Your task to perform on an android device: Search for asus rog on ebay.com, select the first entry, add it to the cart, then select checkout. Image 0: 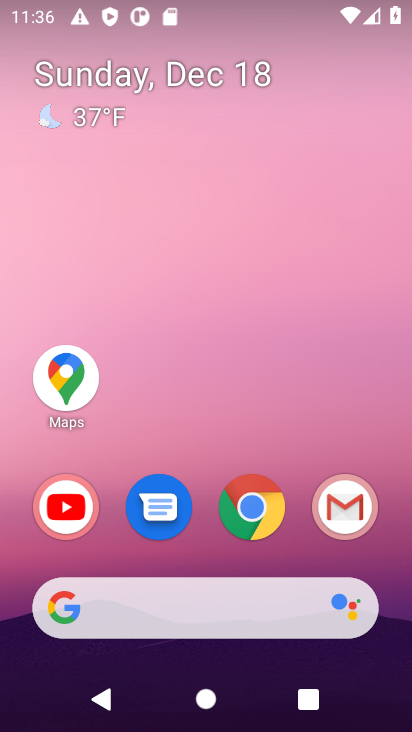
Step 0: click (261, 501)
Your task to perform on an android device: Search for asus rog on ebay.com, select the first entry, add it to the cart, then select checkout. Image 1: 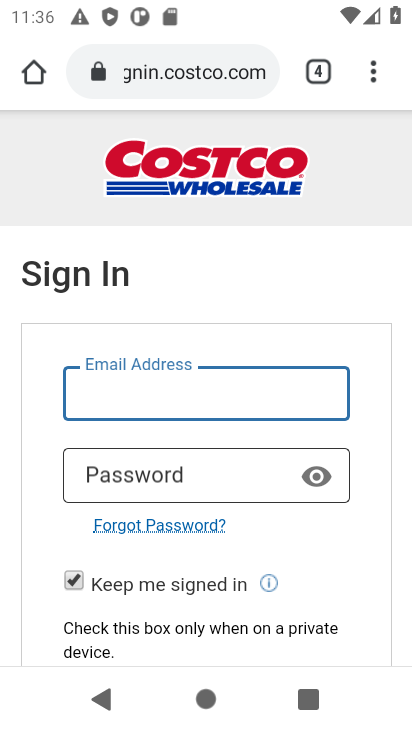
Step 1: click (132, 71)
Your task to perform on an android device: Search for asus rog on ebay.com, select the first entry, add it to the cart, then select checkout. Image 2: 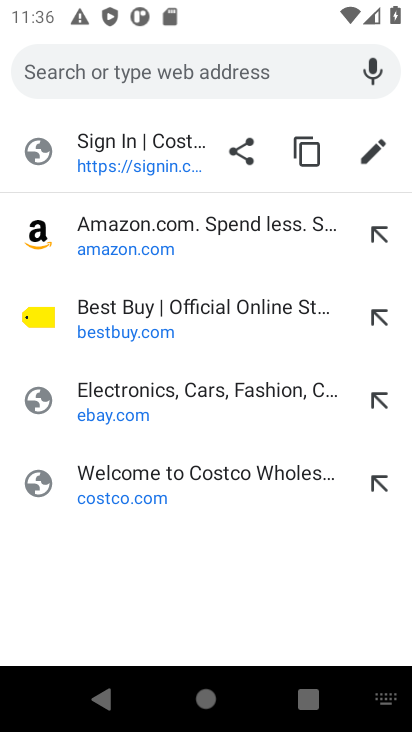
Step 2: click (99, 397)
Your task to perform on an android device: Search for asus rog on ebay.com, select the first entry, add it to the cart, then select checkout. Image 3: 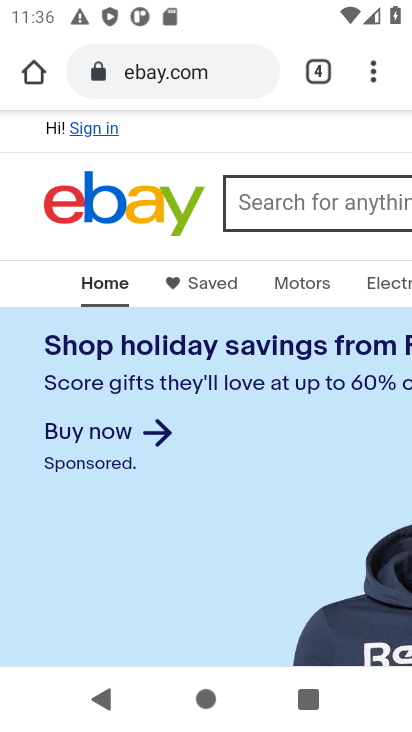
Step 3: click (268, 208)
Your task to perform on an android device: Search for asus rog on ebay.com, select the first entry, add it to the cart, then select checkout. Image 4: 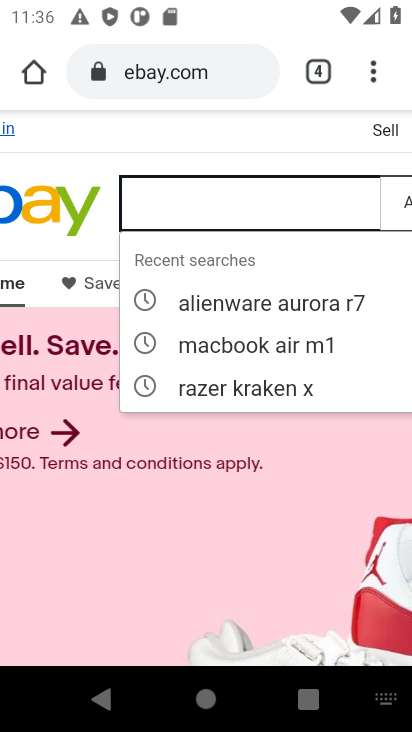
Step 4: type "asus rog "
Your task to perform on an android device: Search for asus rog on ebay.com, select the first entry, add it to the cart, then select checkout. Image 5: 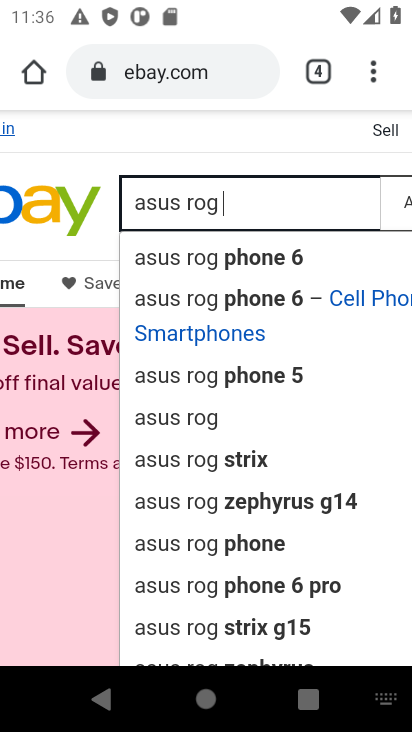
Step 5: click (174, 421)
Your task to perform on an android device: Search for asus rog on ebay.com, select the first entry, add it to the cart, then select checkout. Image 6: 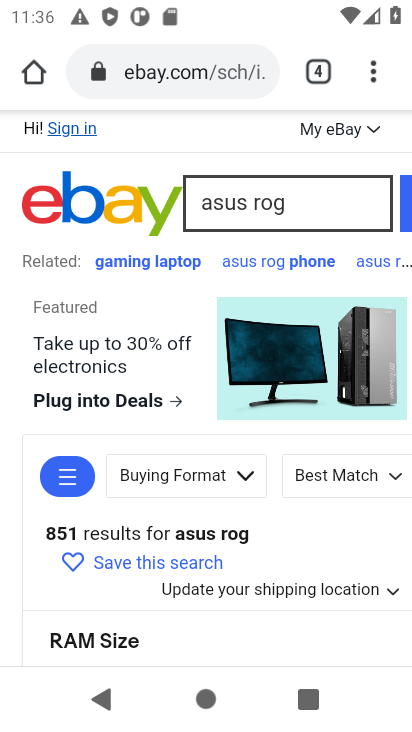
Step 6: drag from (165, 490) to (144, 226)
Your task to perform on an android device: Search for asus rog on ebay.com, select the first entry, add it to the cart, then select checkout. Image 7: 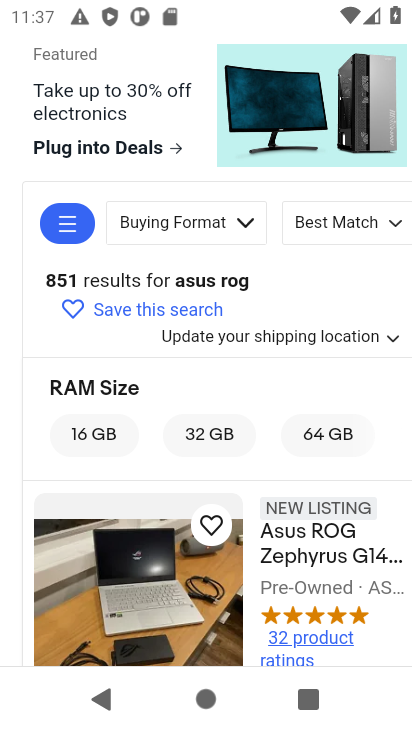
Step 7: drag from (160, 491) to (136, 202)
Your task to perform on an android device: Search for asus rog on ebay.com, select the first entry, add it to the cart, then select checkout. Image 8: 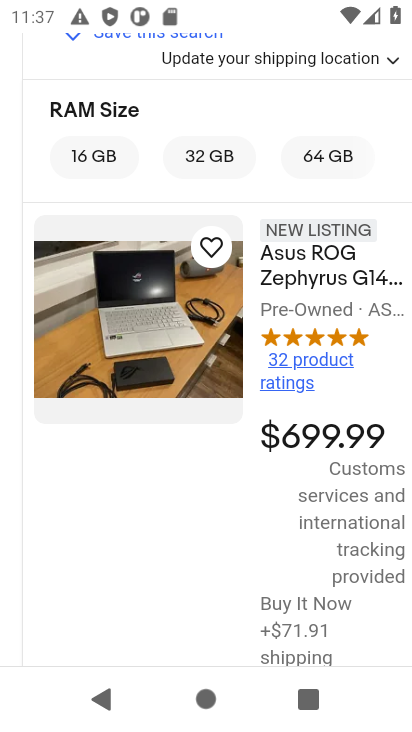
Step 8: click (298, 284)
Your task to perform on an android device: Search for asus rog on ebay.com, select the first entry, add it to the cart, then select checkout. Image 9: 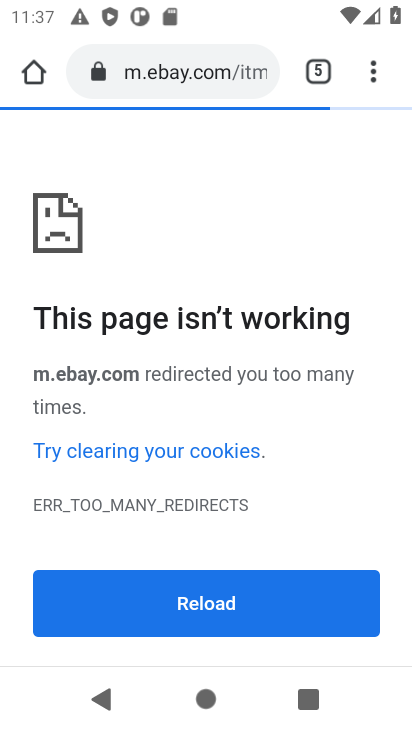
Step 9: task complete